Your task to perform on an android device: Go to eBay Image 0: 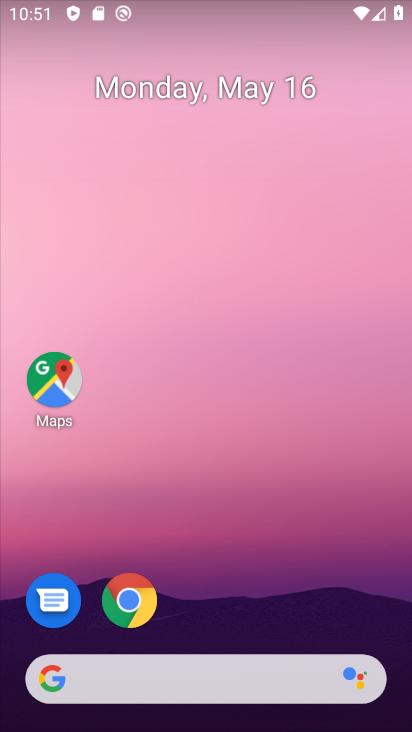
Step 0: click (135, 610)
Your task to perform on an android device: Go to eBay Image 1: 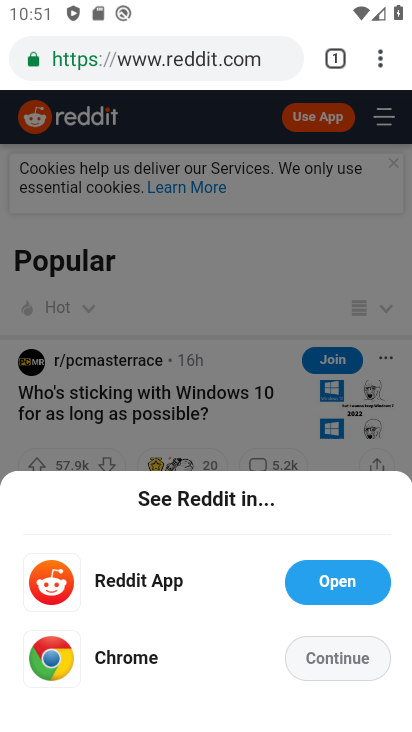
Step 1: click (170, 60)
Your task to perform on an android device: Go to eBay Image 2: 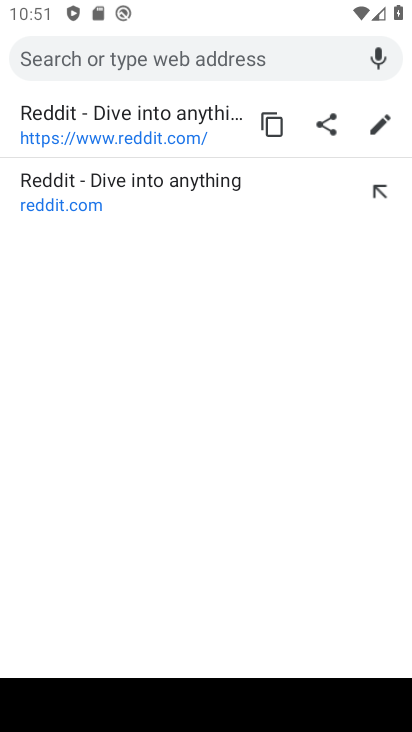
Step 2: type "eBay"
Your task to perform on an android device: Go to eBay Image 3: 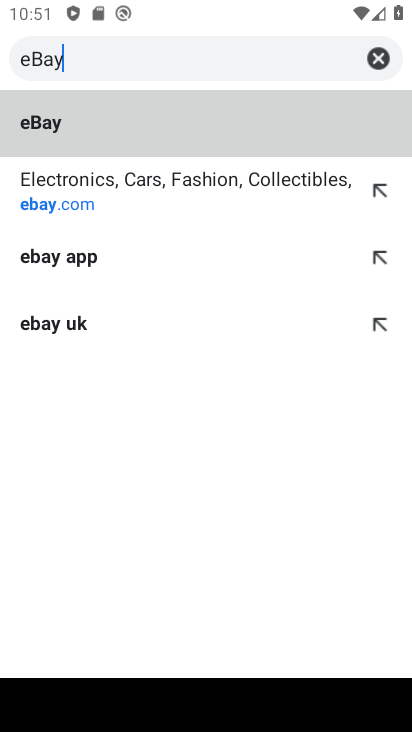
Step 3: click (232, 123)
Your task to perform on an android device: Go to eBay Image 4: 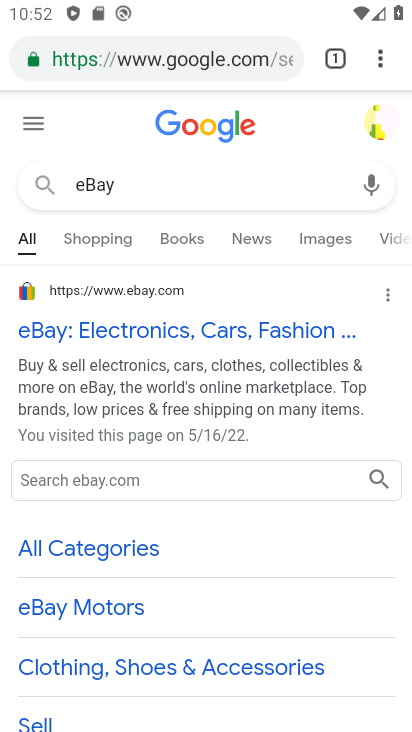
Step 4: task complete